Your task to perform on an android device: change the clock display to analog Image 0: 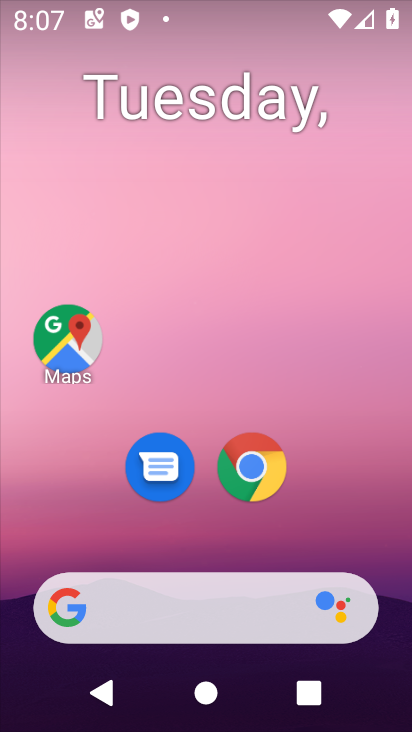
Step 0: drag from (372, 536) to (212, 40)
Your task to perform on an android device: change the clock display to analog Image 1: 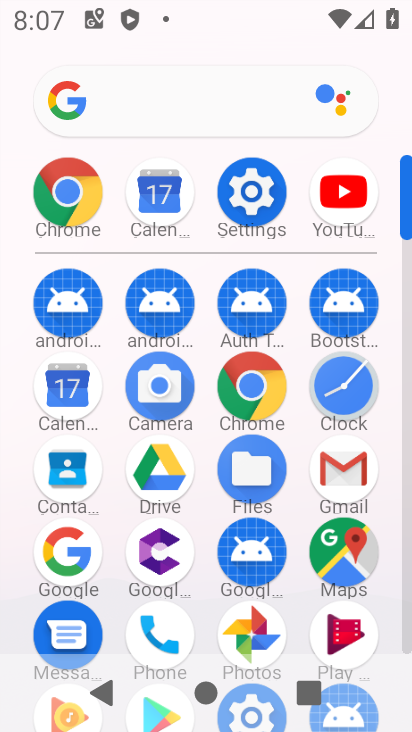
Step 1: click (341, 392)
Your task to perform on an android device: change the clock display to analog Image 2: 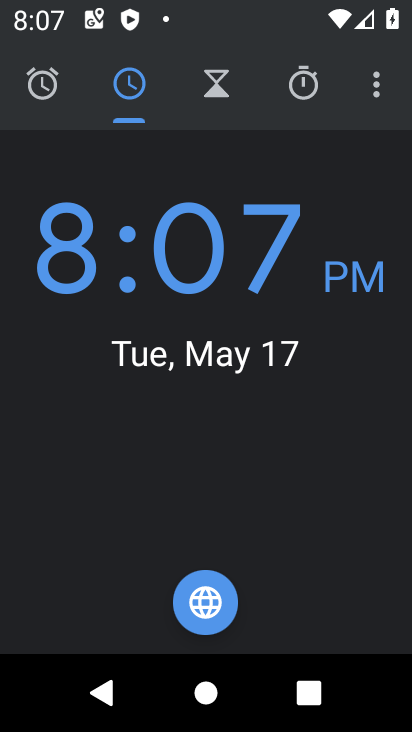
Step 2: click (381, 72)
Your task to perform on an android device: change the clock display to analog Image 3: 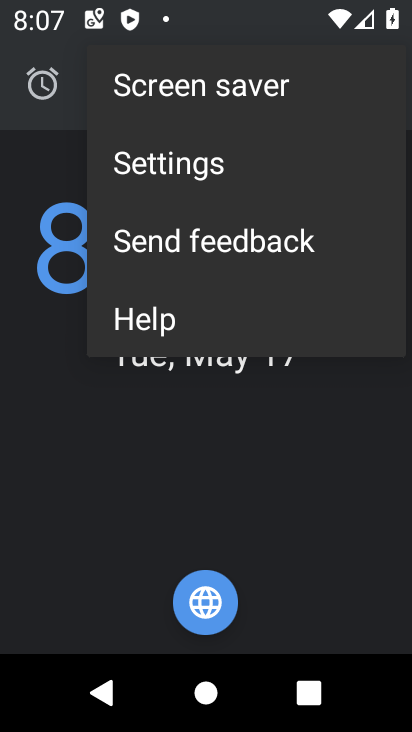
Step 3: click (284, 169)
Your task to perform on an android device: change the clock display to analog Image 4: 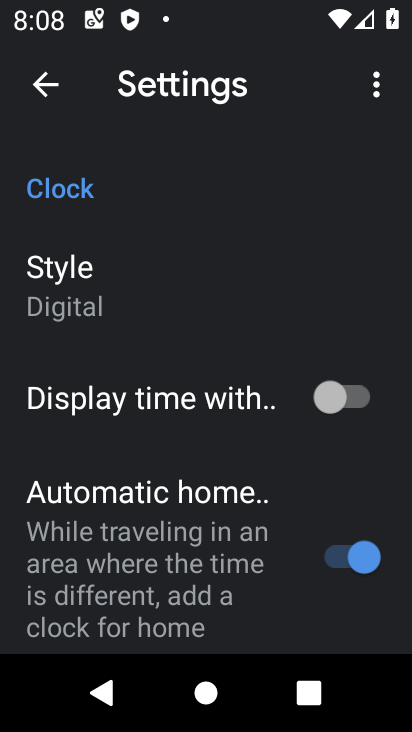
Step 4: click (253, 271)
Your task to perform on an android device: change the clock display to analog Image 5: 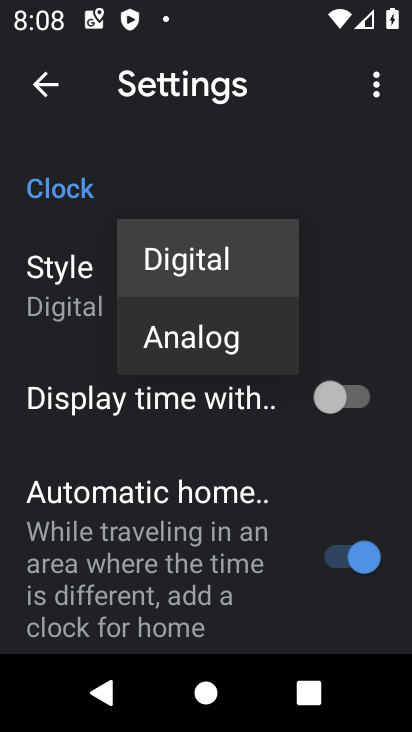
Step 5: click (237, 329)
Your task to perform on an android device: change the clock display to analog Image 6: 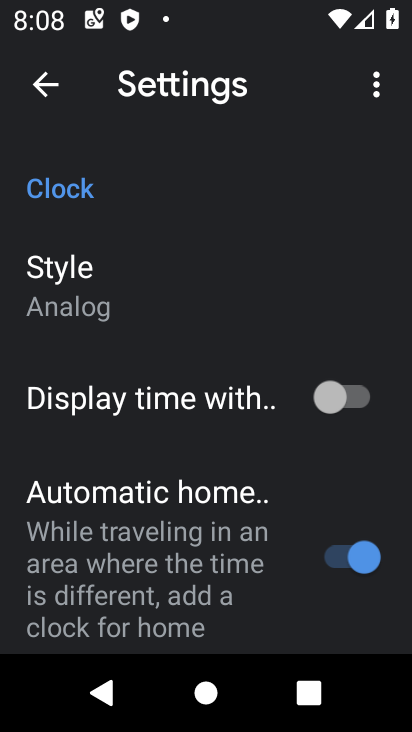
Step 6: task complete